Your task to perform on an android device: Go to network settings Image 0: 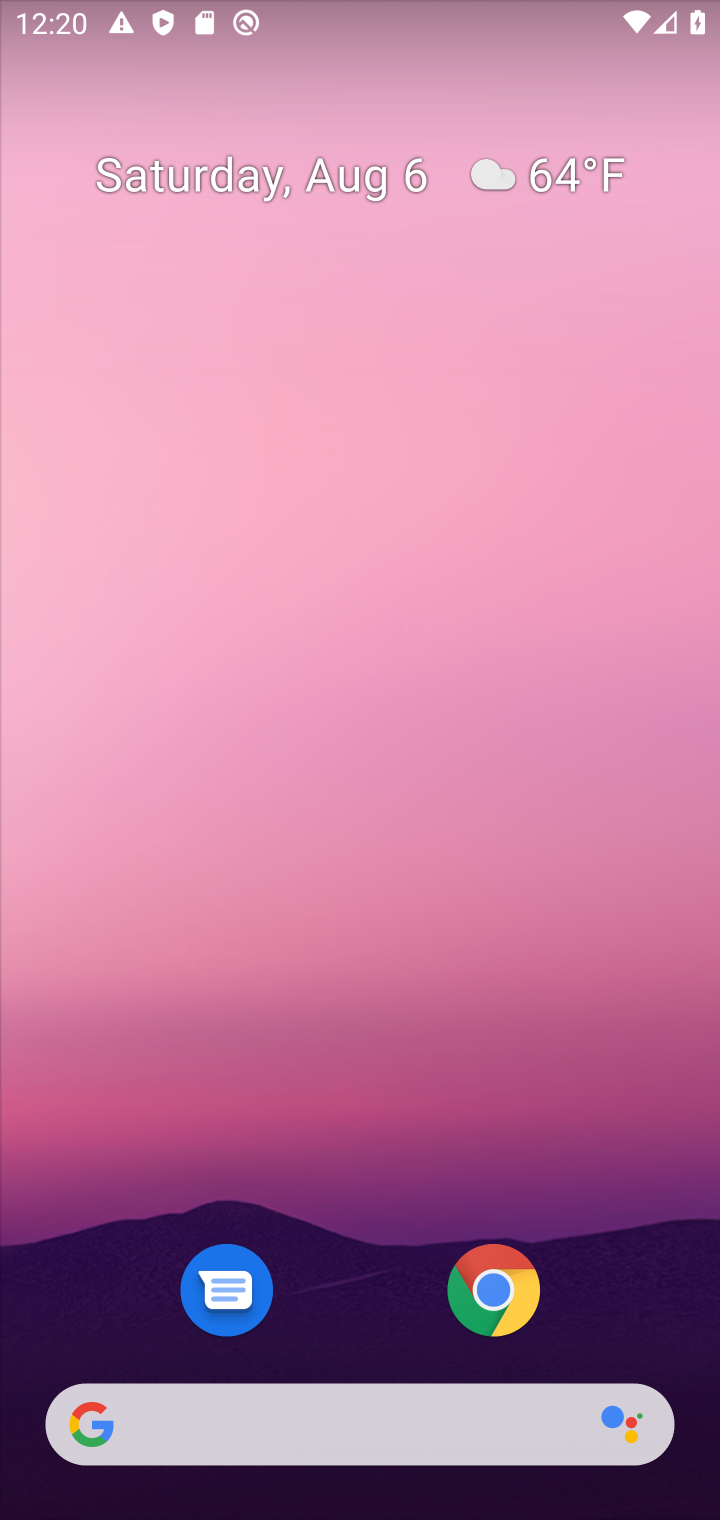
Step 0: drag from (370, 1336) to (403, 70)
Your task to perform on an android device: Go to network settings Image 1: 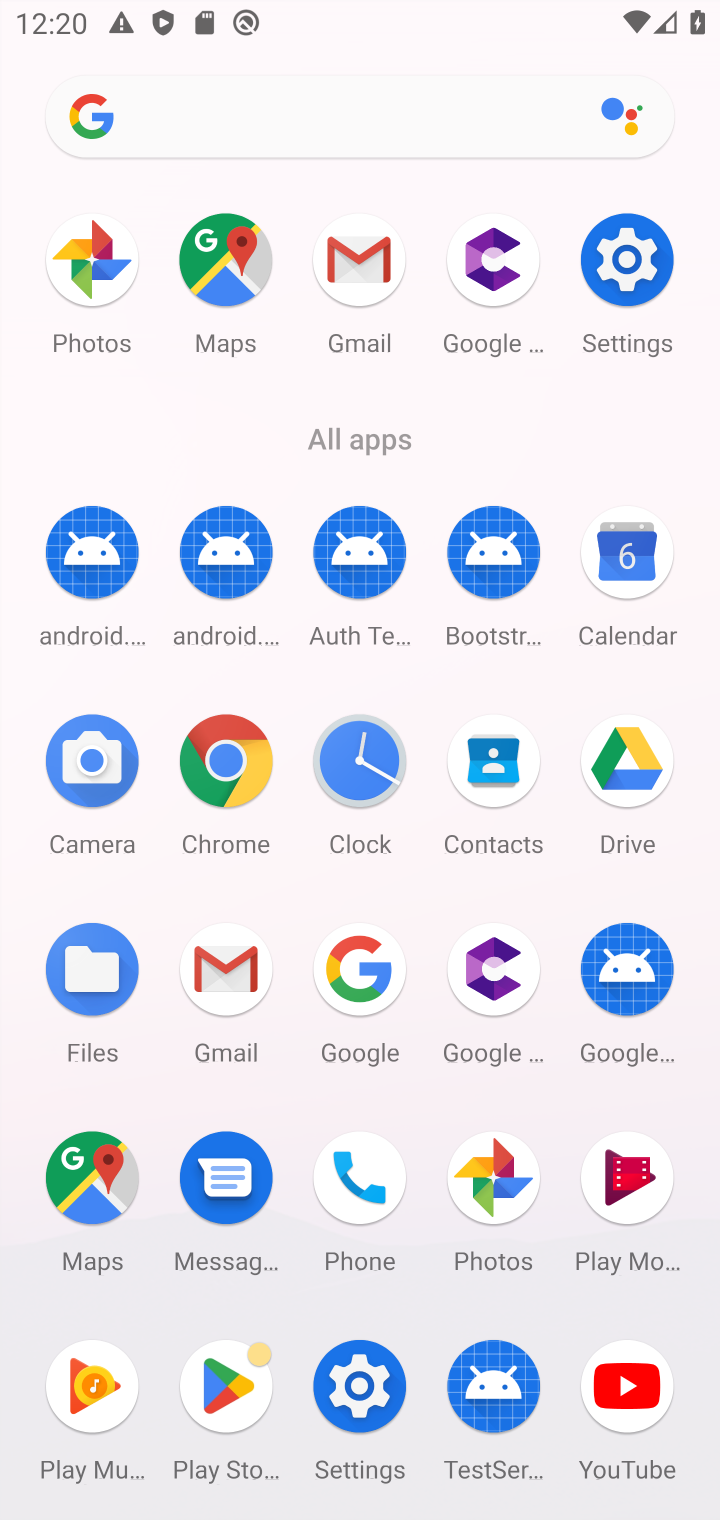
Step 1: click (617, 245)
Your task to perform on an android device: Go to network settings Image 2: 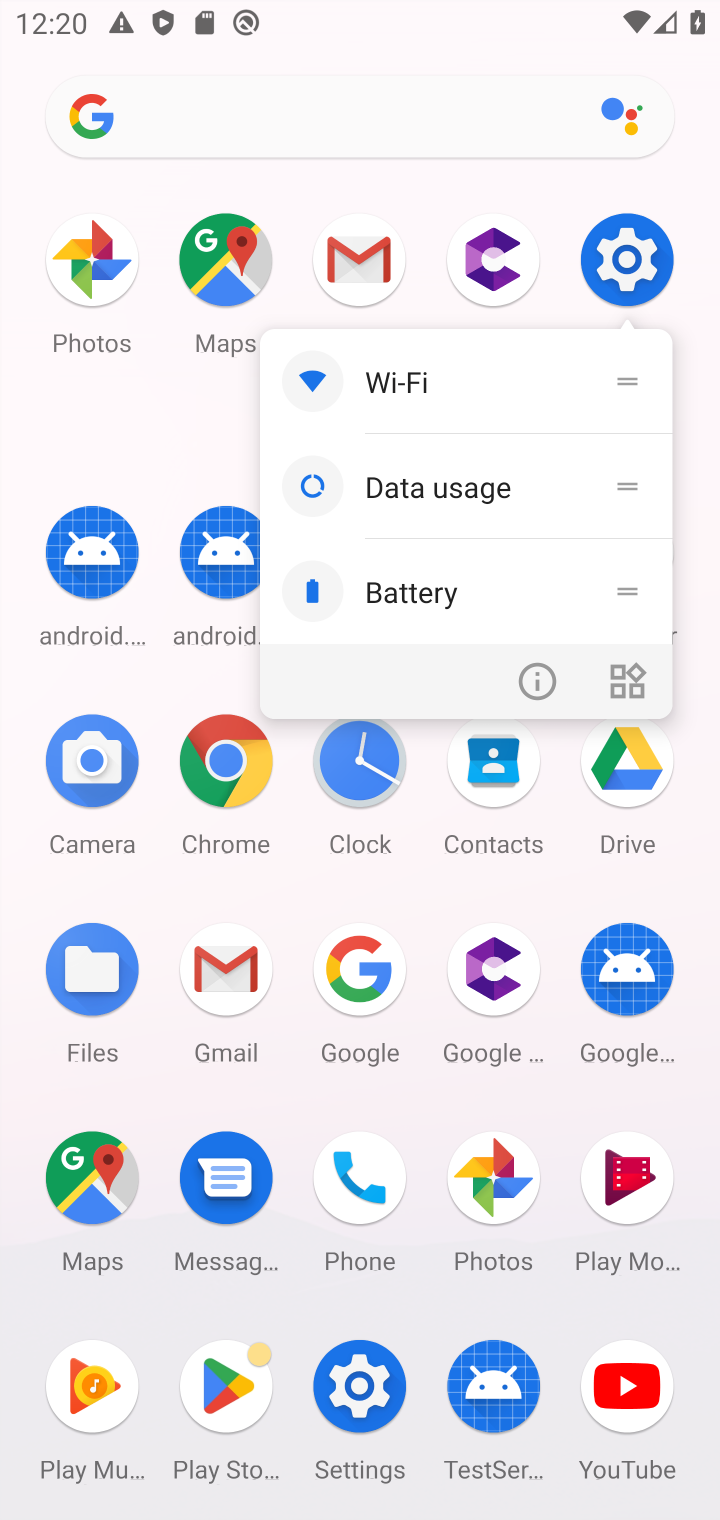
Step 2: click (620, 248)
Your task to perform on an android device: Go to network settings Image 3: 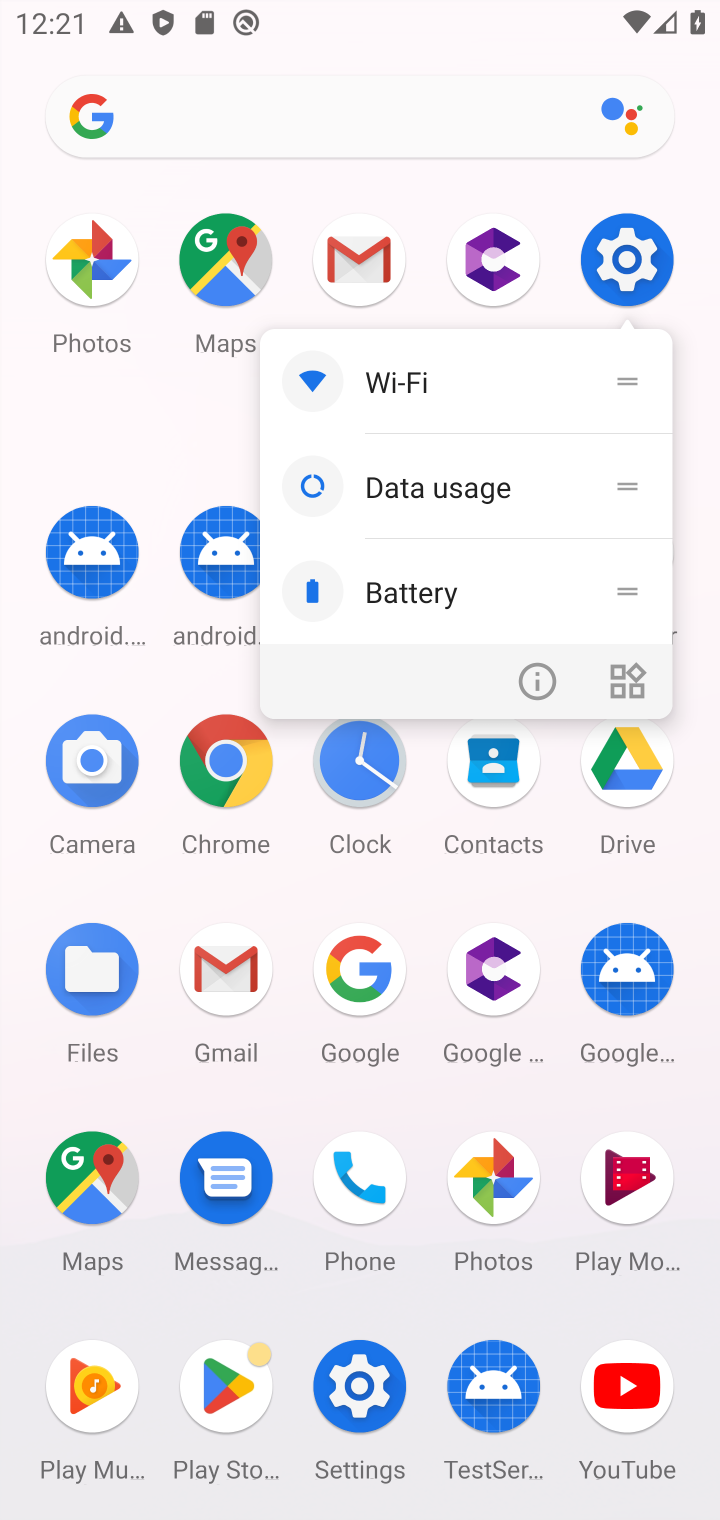
Step 3: click (621, 253)
Your task to perform on an android device: Go to network settings Image 4: 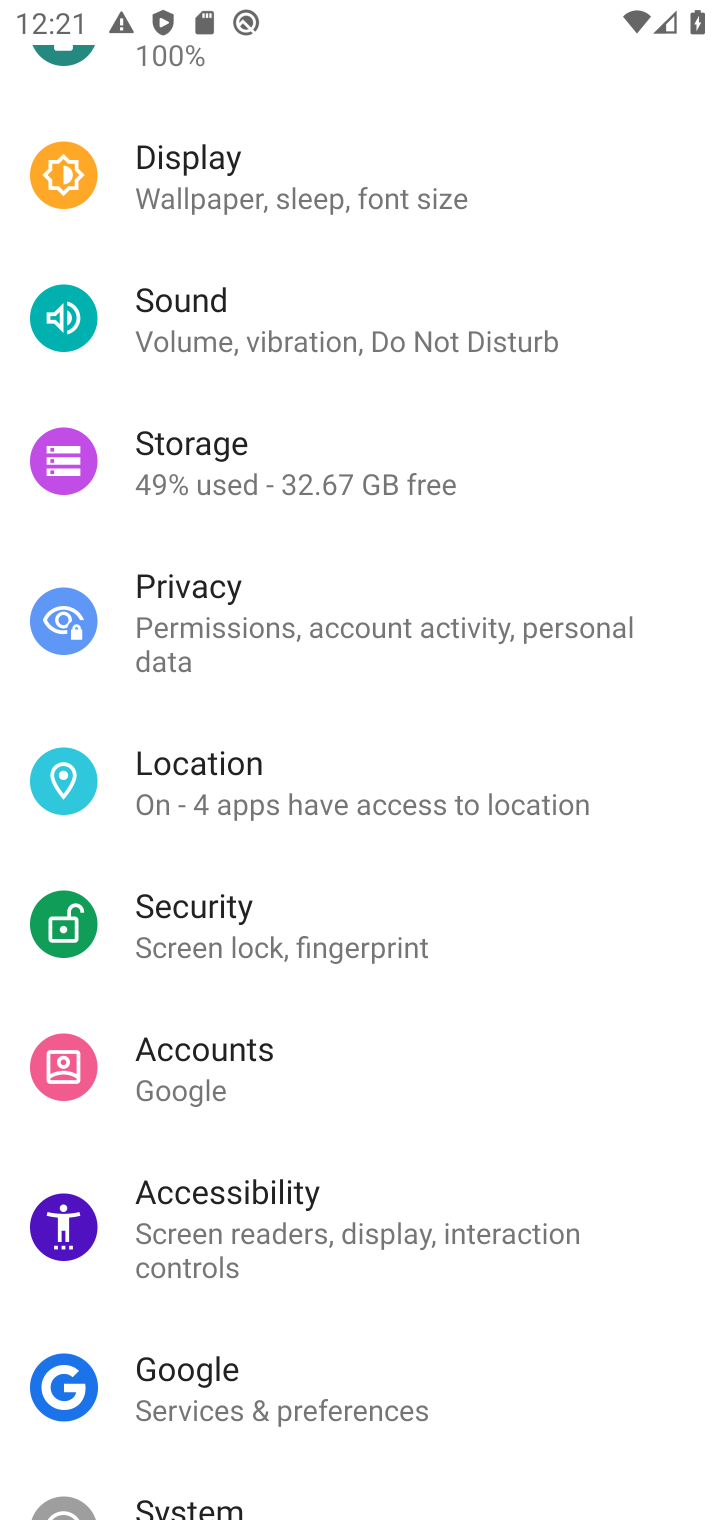
Step 4: drag from (241, 126) to (365, 1382)
Your task to perform on an android device: Go to network settings Image 5: 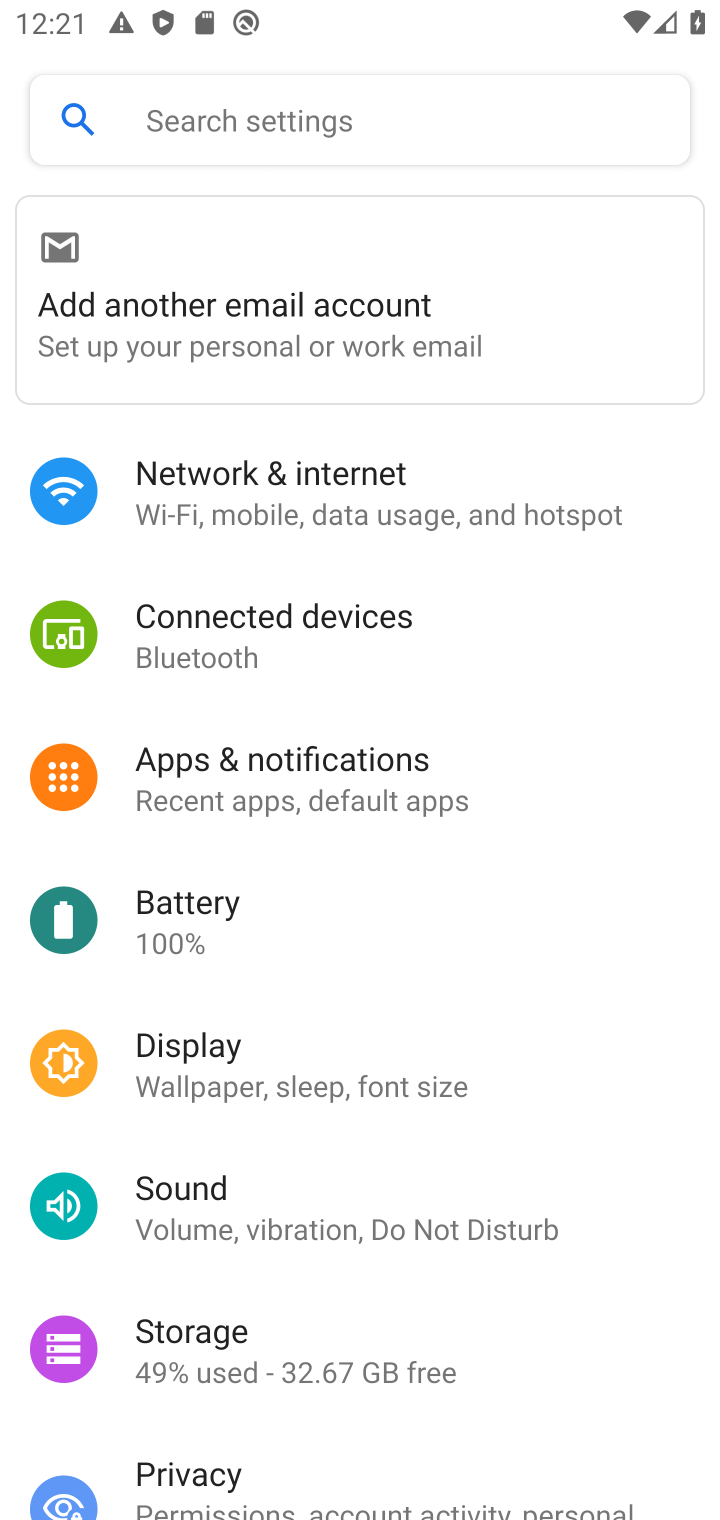
Step 5: click (126, 479)
Your task to perform on an android device: Go to network settings Image 6: 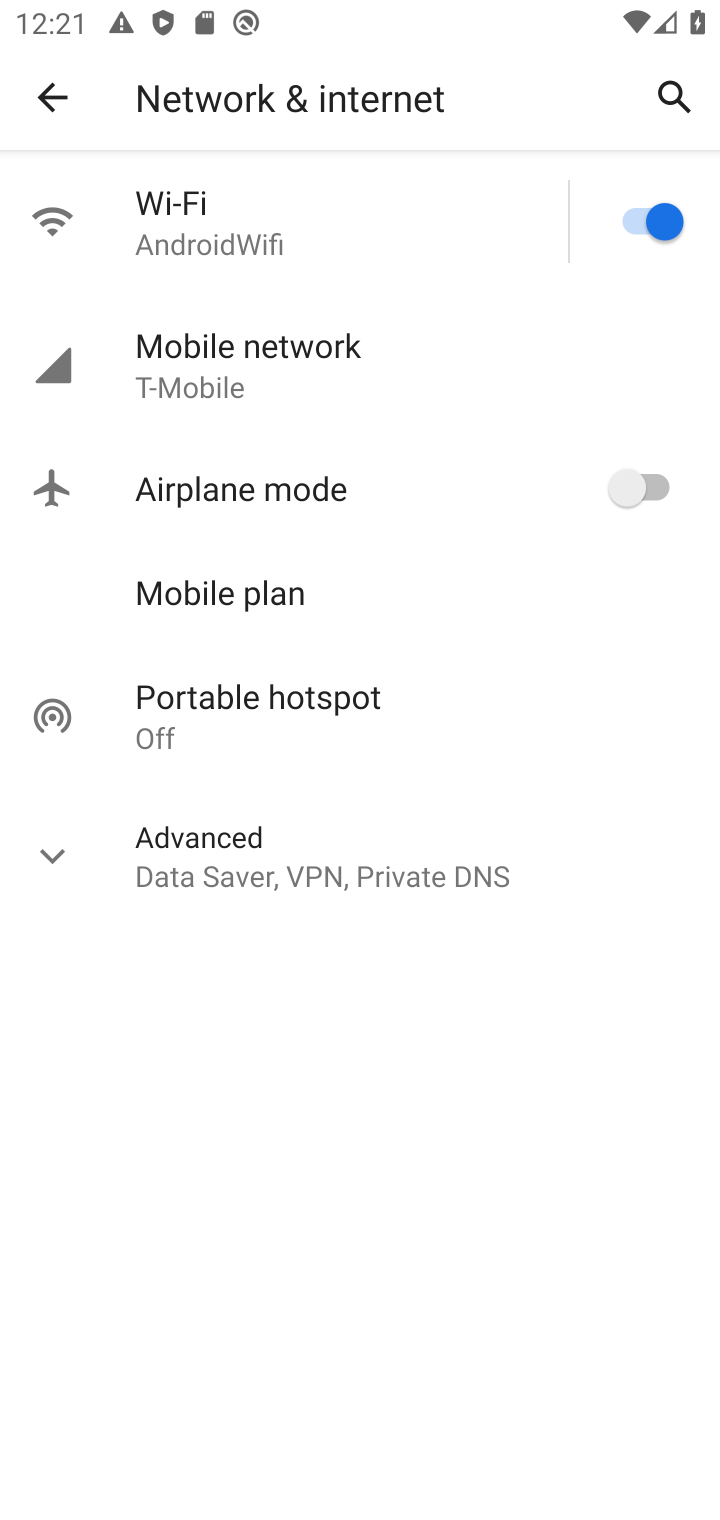
Step 6: click (49, 843)
Your task to perform on an android device: Go to network settings Image 7: 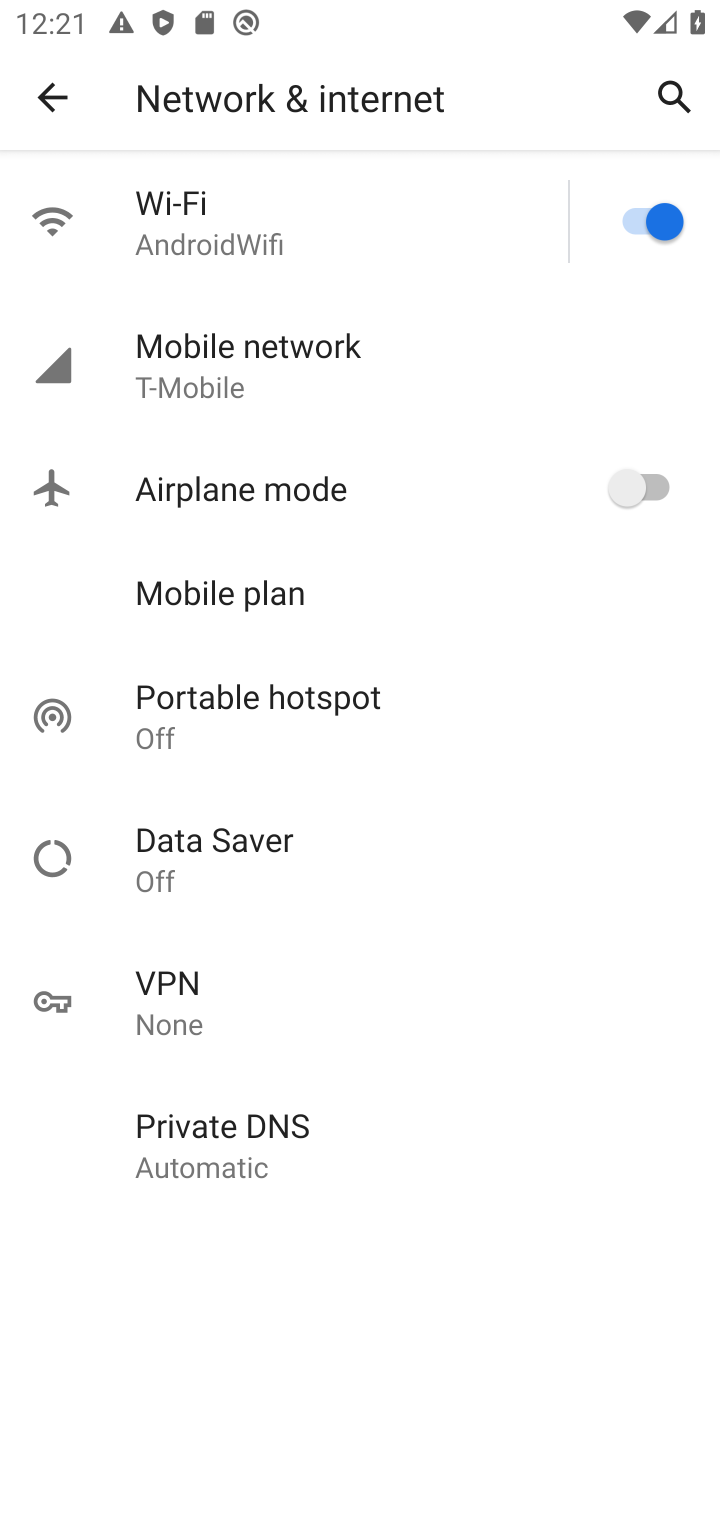
Step 7: task complete